Your task to perform on an android device: Search for sushi restaurants on Maps Image 0: 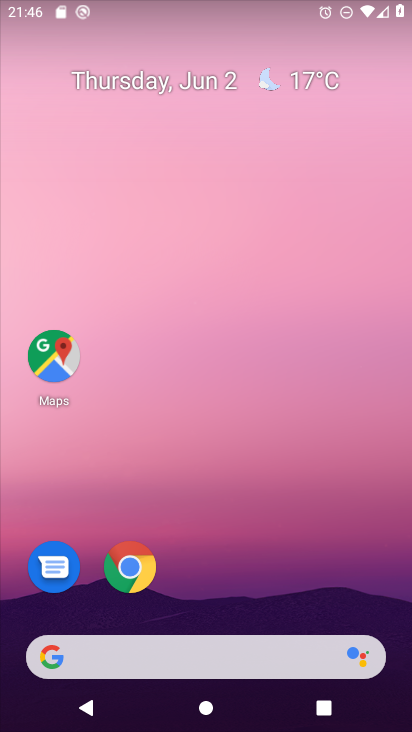
Step 0: click (55, 348)
Your task to perform on an android device: Search for sushi restaurants on Maps Image 1: 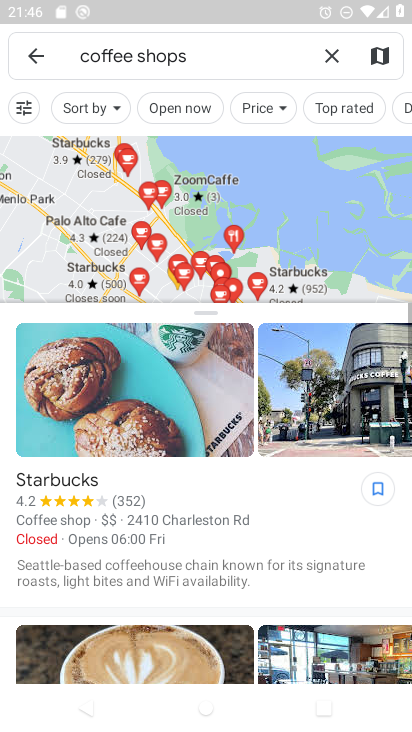
Step 1: click (330, 49)
Your task to perform on an android device: Search for sushi restaurants on Maps Image 2: 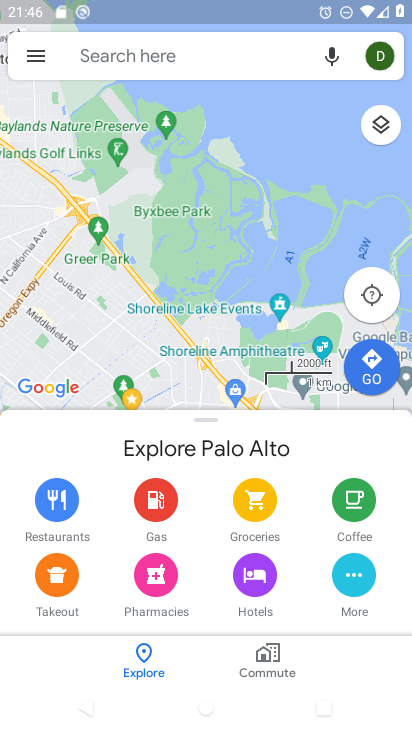
Step 2: click (168, 54)
Your task to perform on an android device: Search for sushi restaurants on Maps Image 3: 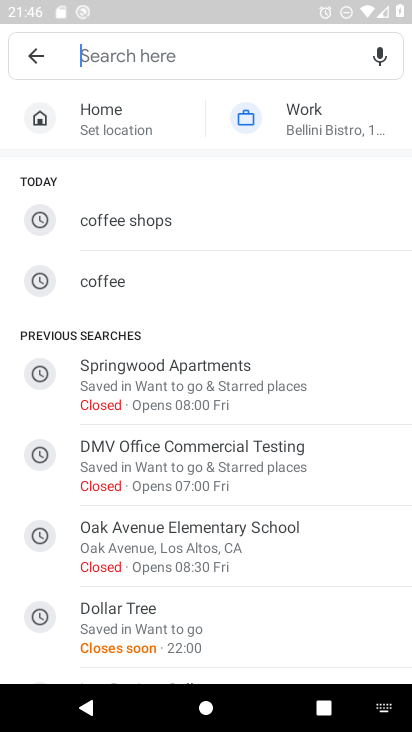
Step 3: type "sushi restaurants"
Your task to perform on an android device: Search for sushi restaurants on Maps Image 4: 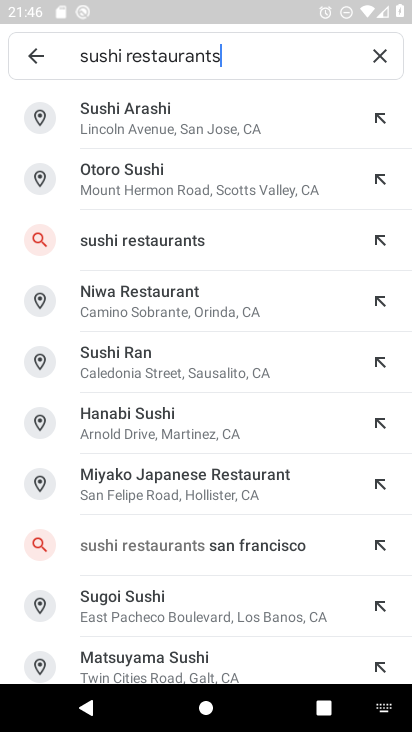
Step 4: click (191, 131)
Your task to perform on an android device: Search for sushi restaurants on Maps Image 5: 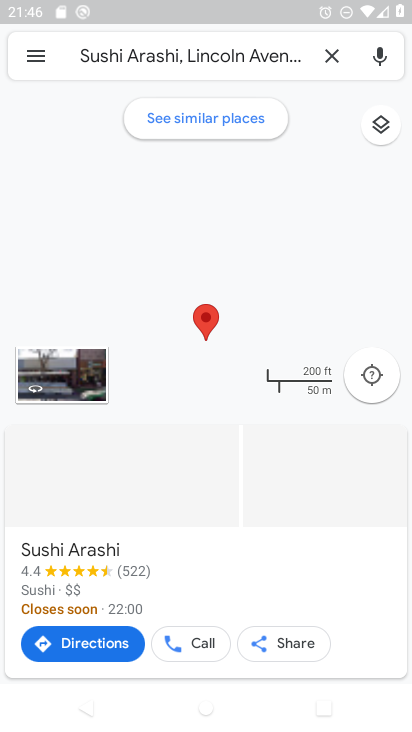
Step 5: task complete